Your task to perform on an android device: Go to Amazon Image 0: 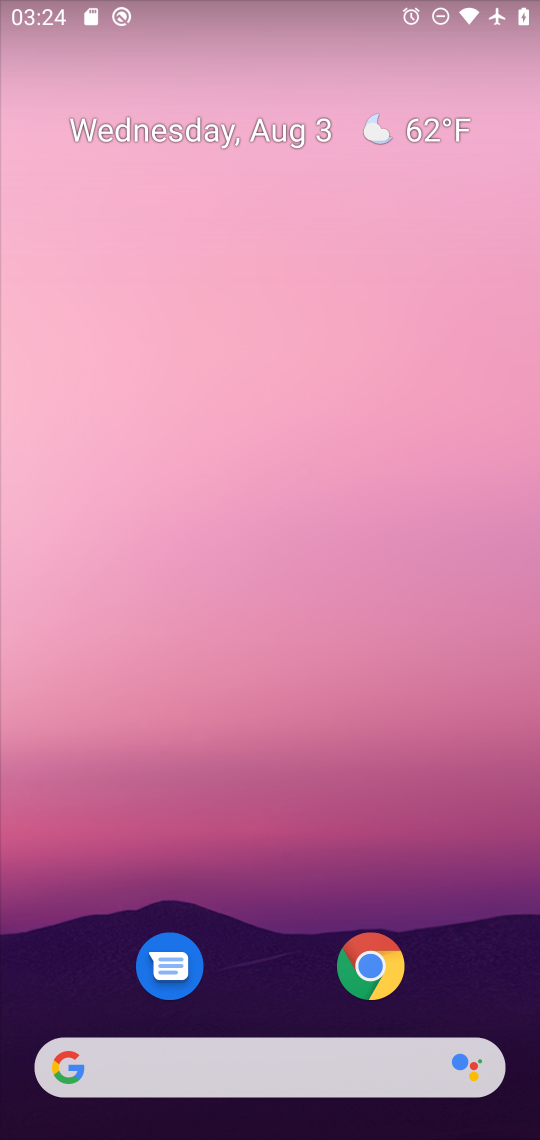
Step 0: click (386, 979)
Your task to perform on an android device: Go to Amazon Image 1: 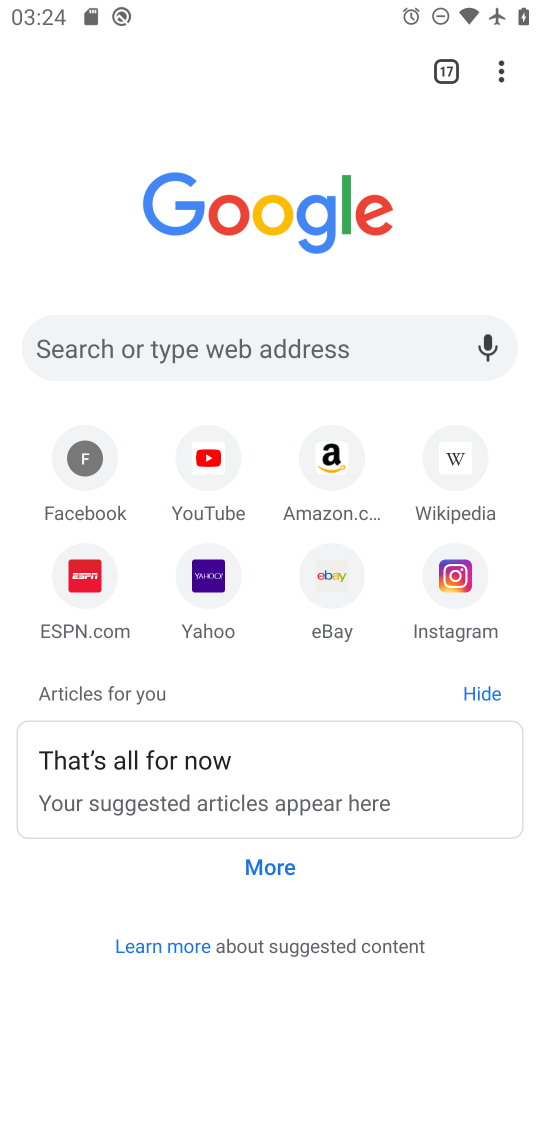
Step 1: click (325, 439)
Your task to perform on an android device: Go to Amazon Image 2: 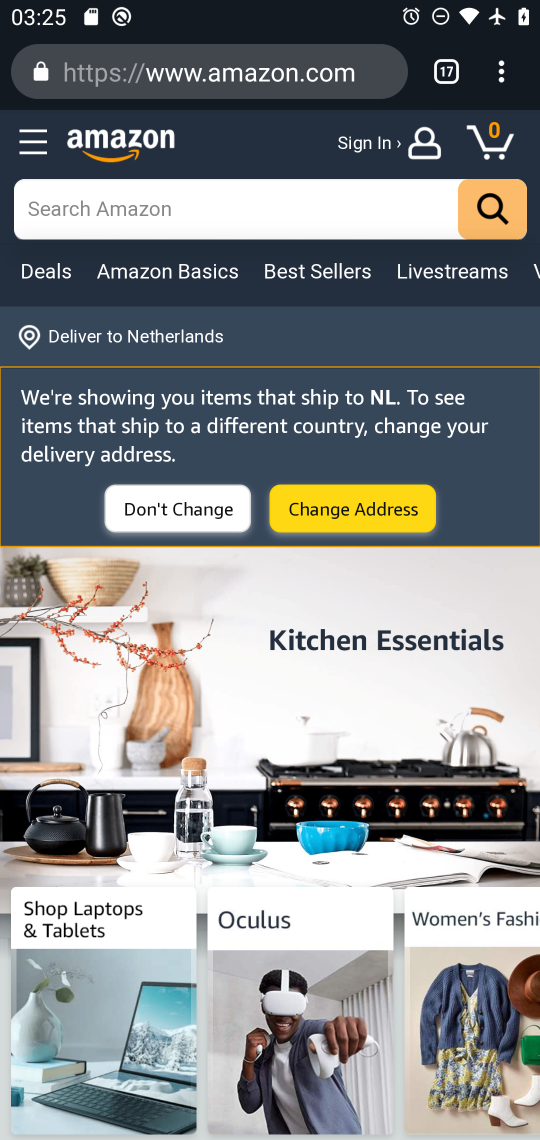
Step 2: task complete